Your task to perform on an android device: refresh tabs in the chrome app Image 0: 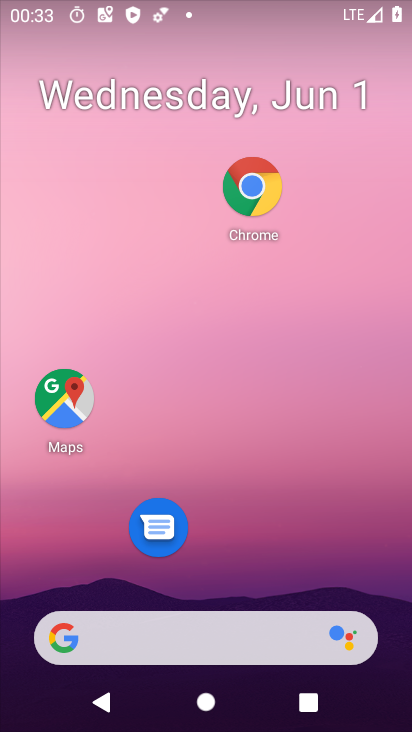
Step 0: click (247, 192)
Your task to perform on an android device: refresh tabs in the chrome app Image 1: 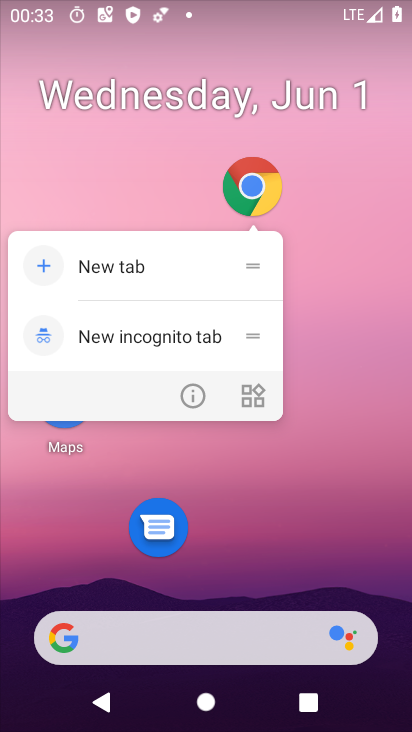
Step 1: click (170, 414)
Your task to perform on an android device: refresh tabs in the chrome app Image 2: 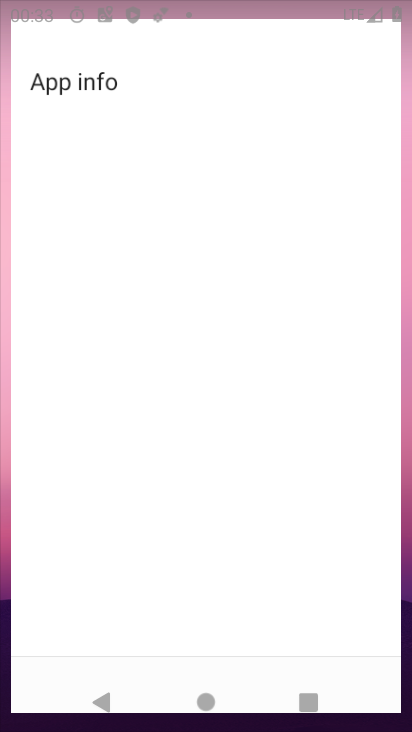
Step 2: click (177, 413)
Your task to perform on an android device: refresh tabs in the chrome app Image 3: 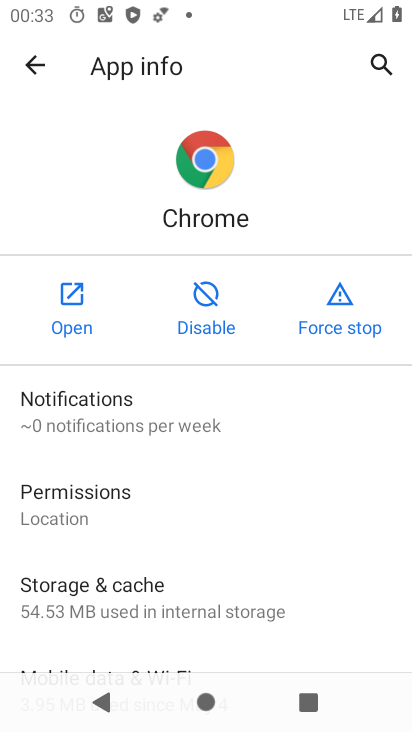
Step 3: click (83, 348)
Your task to perform on an android device: refresh tabs in the chrome app Image 4: 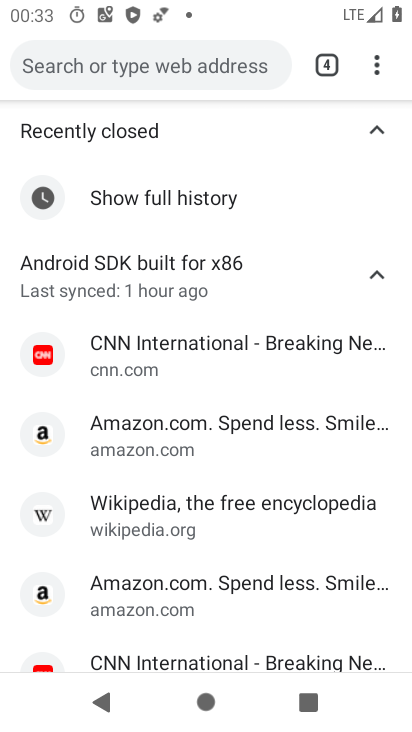
Step 4: click (369, 60)
Your task to perform on an android device: refresh tabs in the chrome app Image 5: 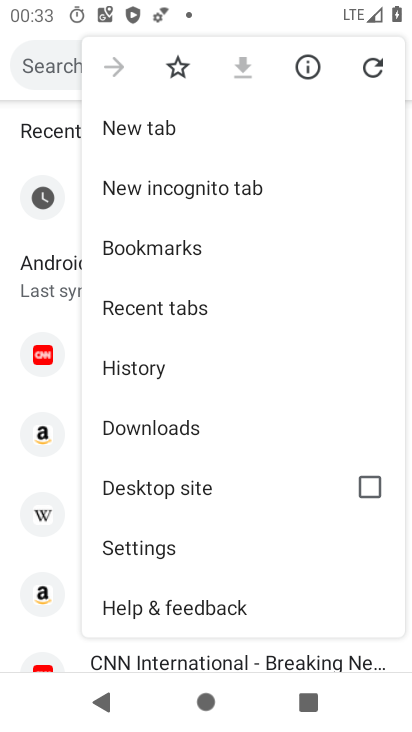
Step 5: click (378, 62)
Your task to perform on an android device: refresh tabs in the chrome app Image 6: 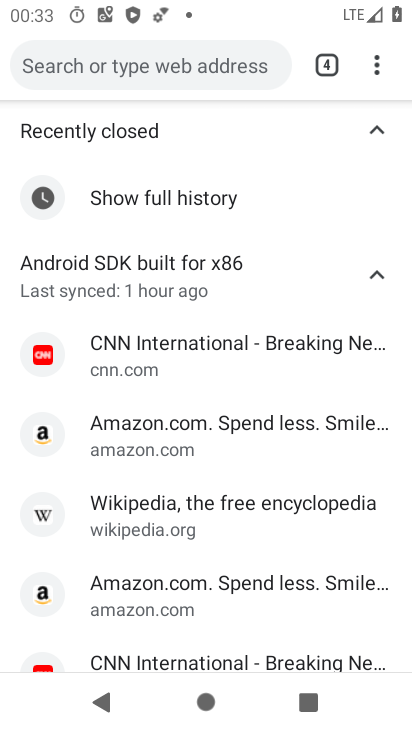
Step 6: task complete